Your task to perform on an android device: Show the shopping cart on ebay.com. Image 0: 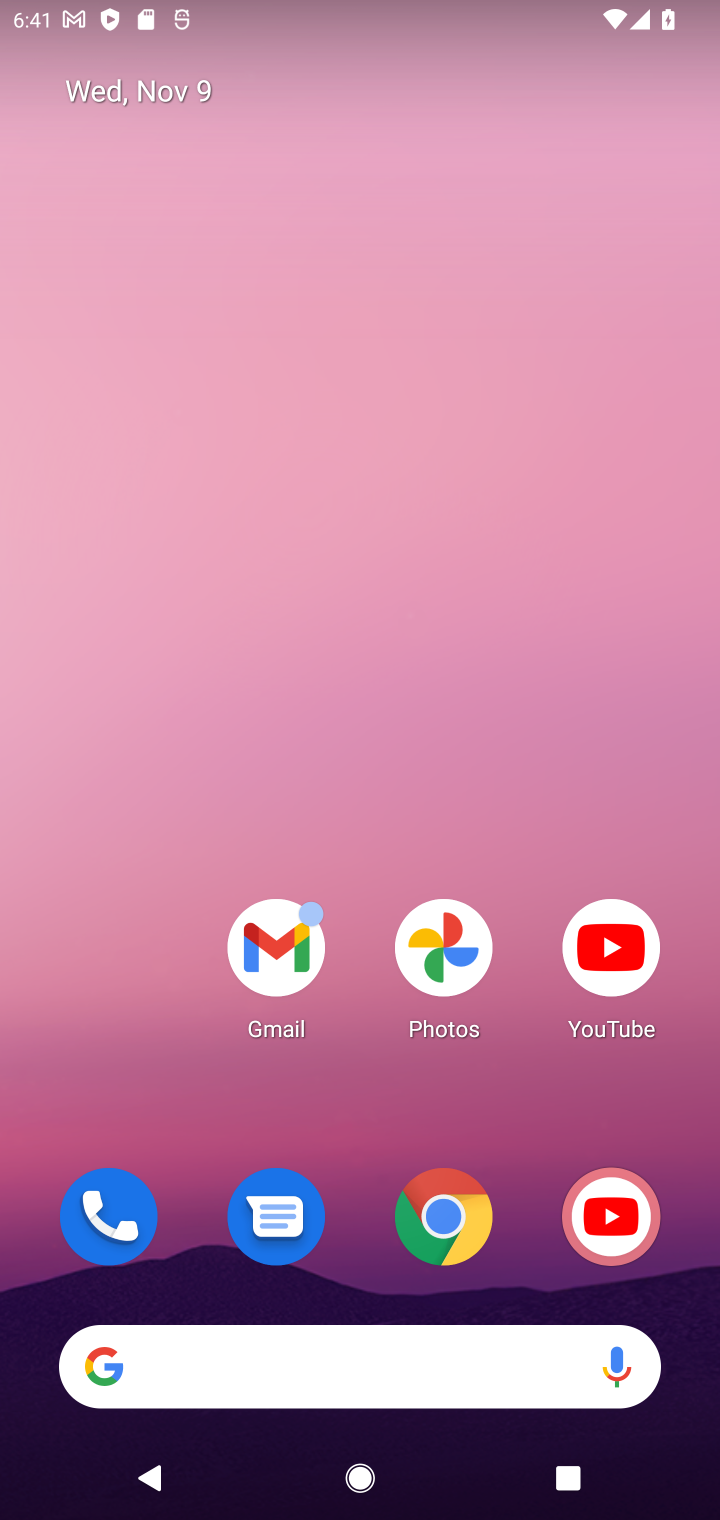
Step 0: drag from (368, 1115) to (387, 56)
Your task to perform on an android device: Show the shopping cart on ebay.com. Image 1: 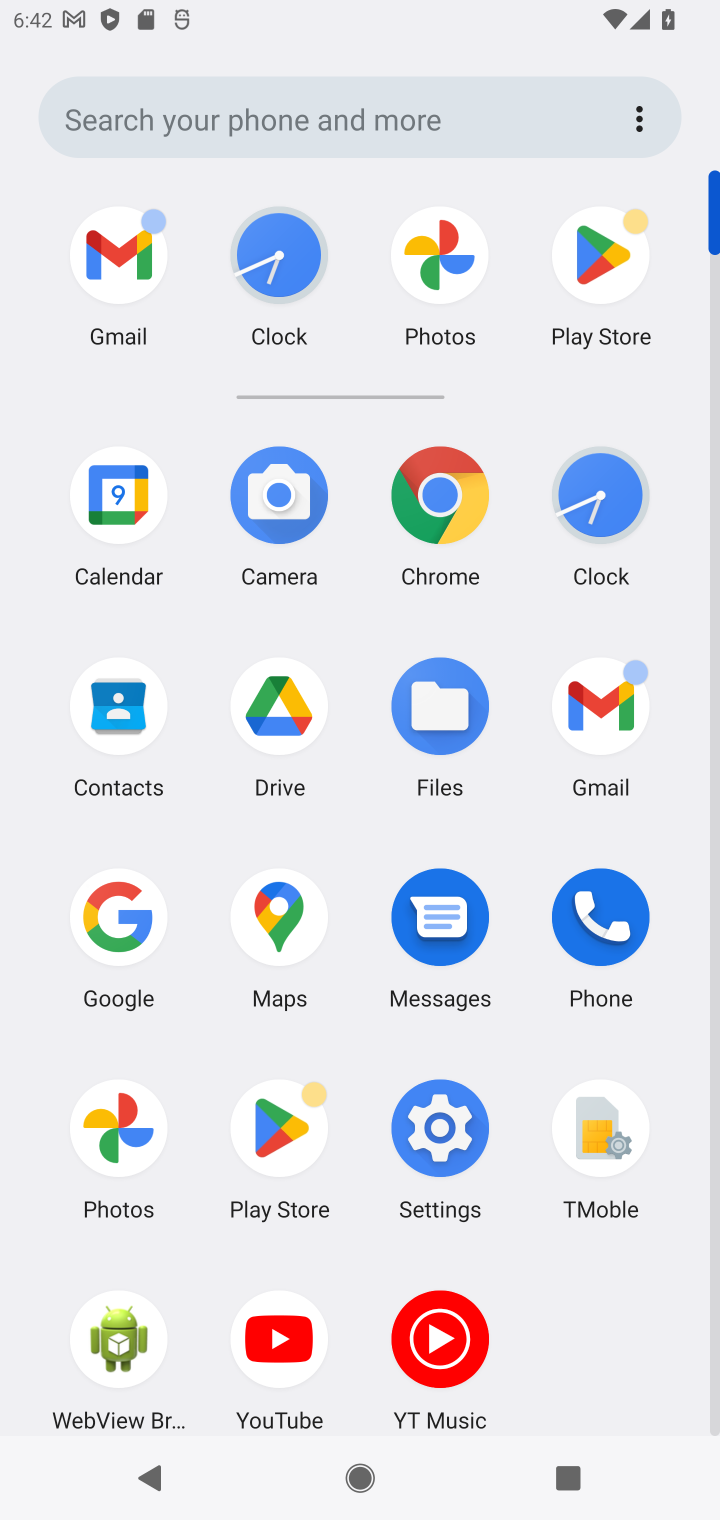
Step 1: click (441, 489)
Your task to perform on an android device: Show the shopping cart on ebay.com. Image 2: 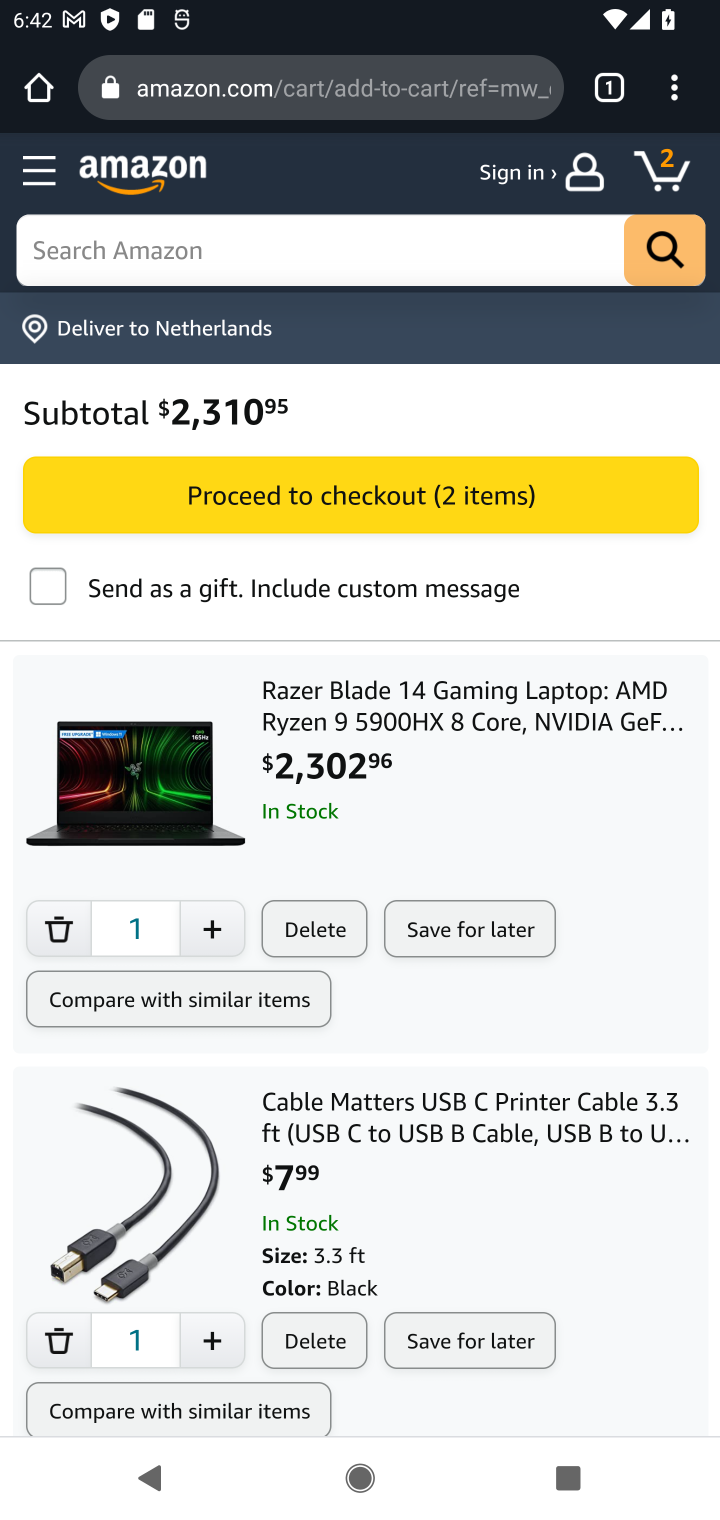
Step 2: click (374, 104)
Your task to perform on an android device: Show the shopping cart on ebay.com. Image 3: 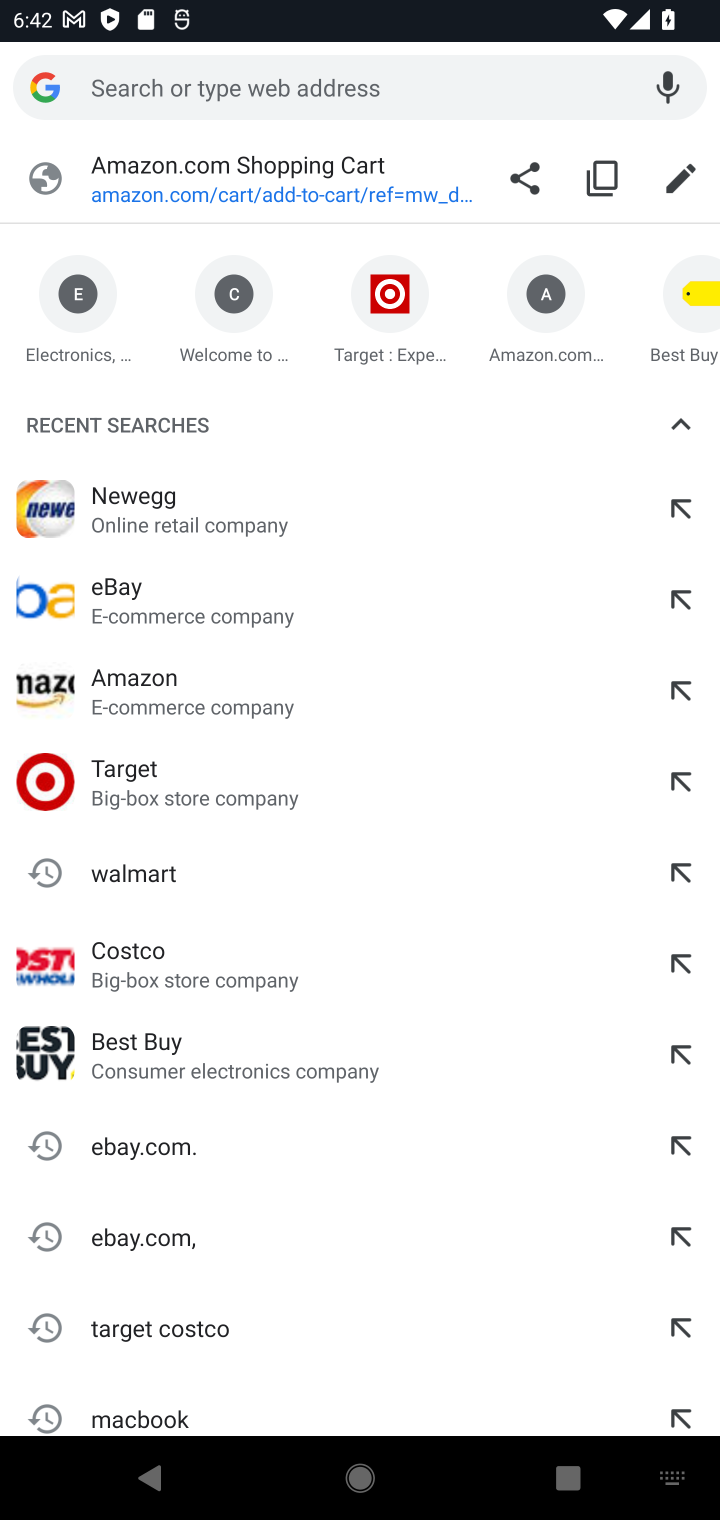
Step 3: type "ebay.com"
Your task to perform on an android device: Show the shopping cart on ebay.com. Image 4: 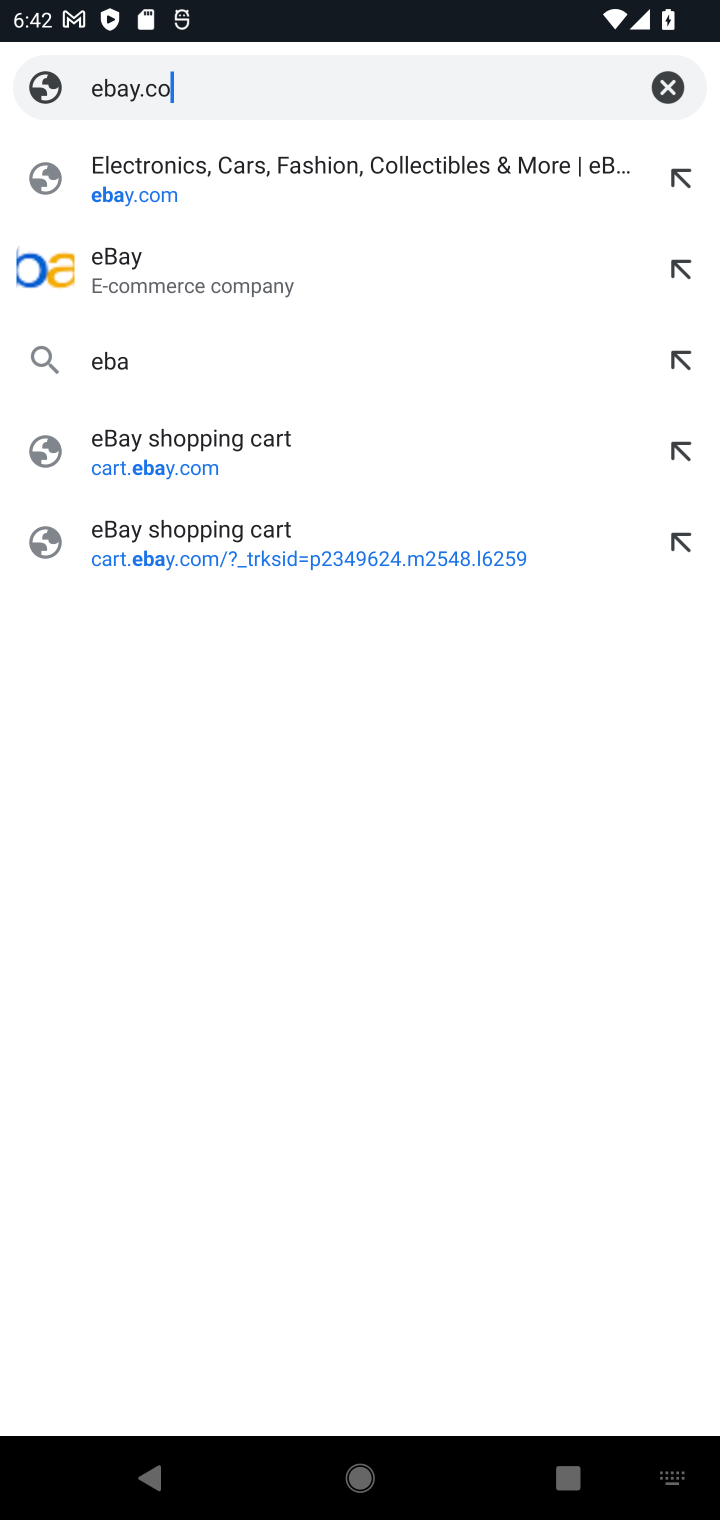
Step 4: press enter
Your task to perform on an android device: Show the shopping cart on ebay.com. Image 5: 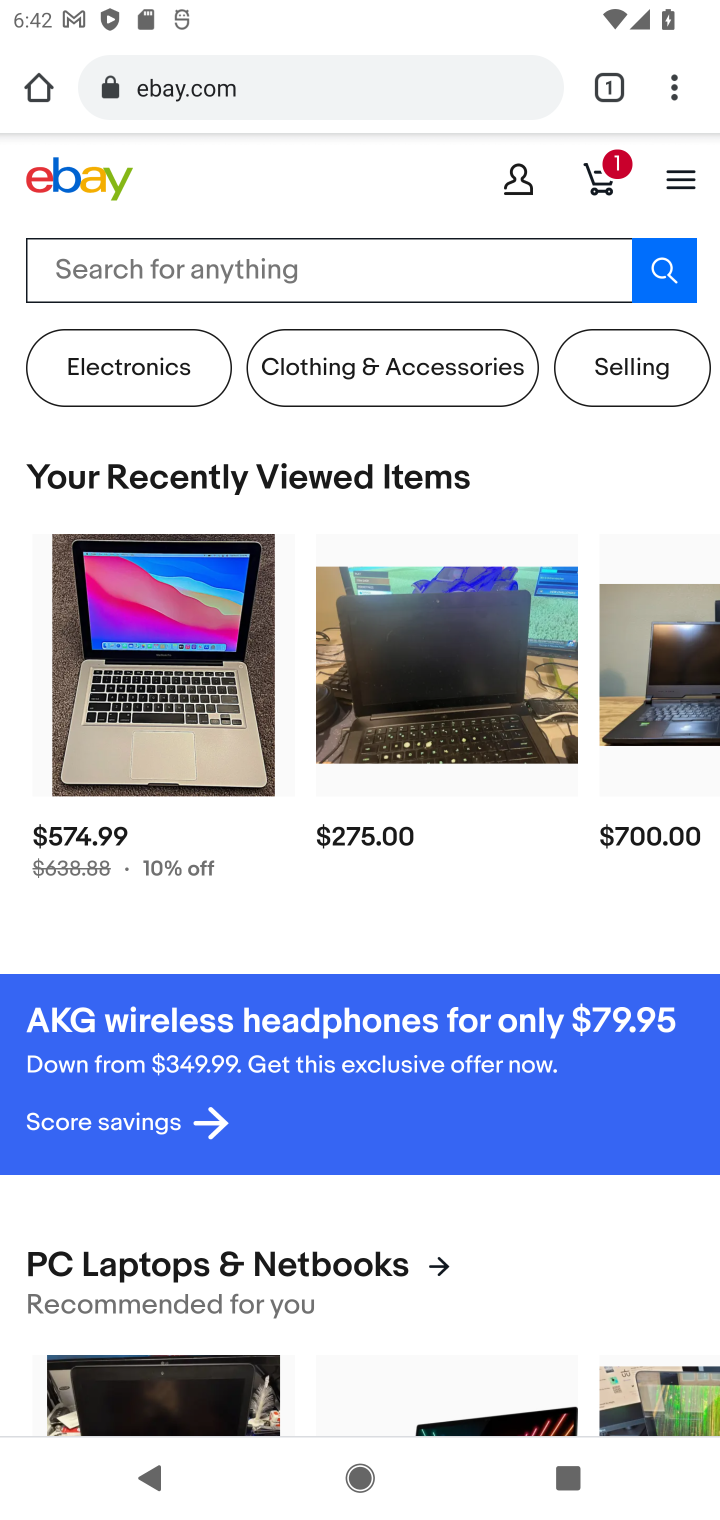
Step 5: click (610, 162)
Your task to perform on an android device: Show the shopping cart on ebay.com. Image 6: 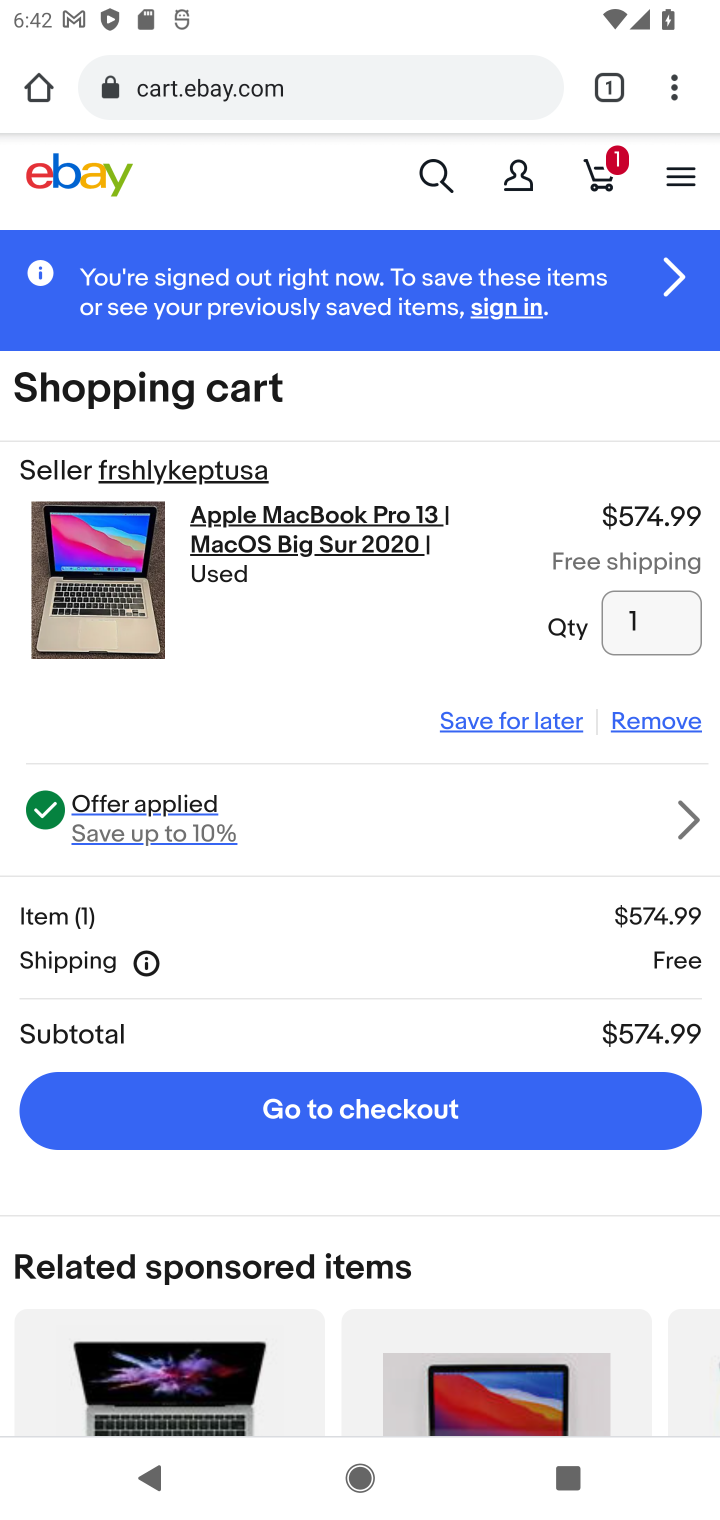
Step 6: task complete